Your task to perform on an android device: What is the recent news? Image 0: 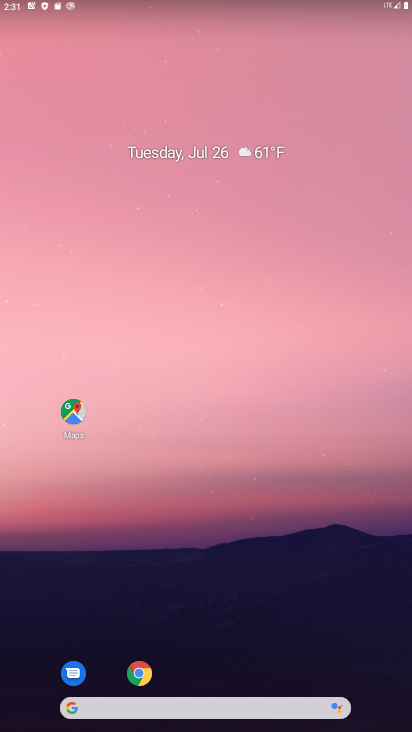
Step 0: drag from (191, 612) to (191, 330)
Your task to perform on an android device: What is the recent news? Image 1: 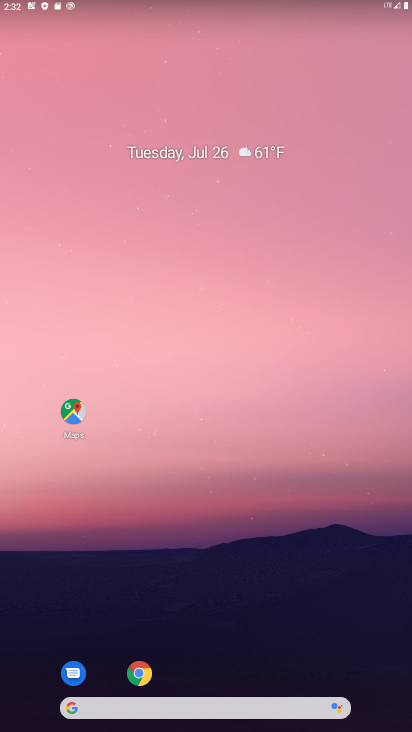
Step 1: drag from (219, 601) to (242, 71)
Your task to perform on an android device: What is the recent news? Image 2: 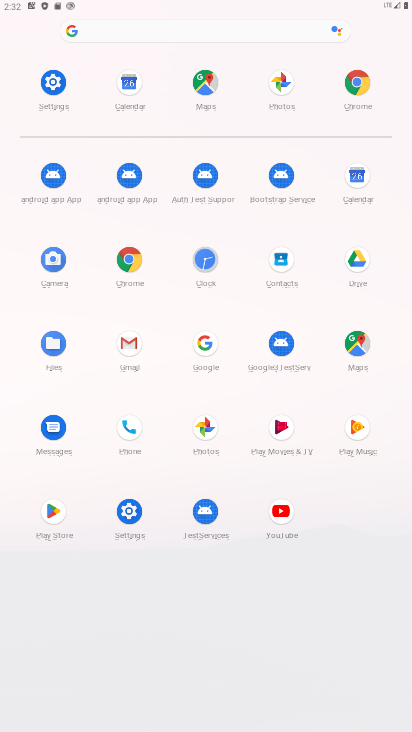
Step 2: click (199, 25)
Your task to perform on an android device: What is the recent news? Image 3: 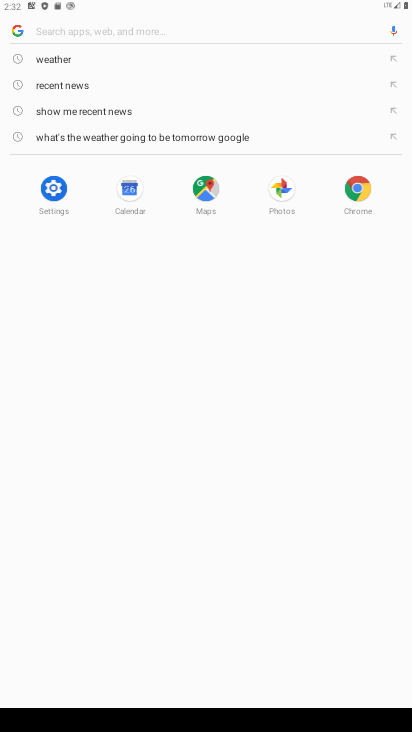
Step 3: click (72, 87)
Your task to perform on an android device: What is the recent news? Image 4: 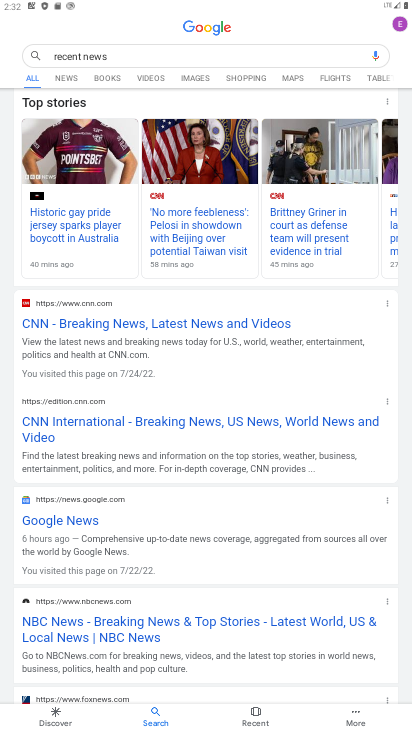
Step 4: task complete